Your task to perform on an android device: clear all cookies in the chrome app Image 0: 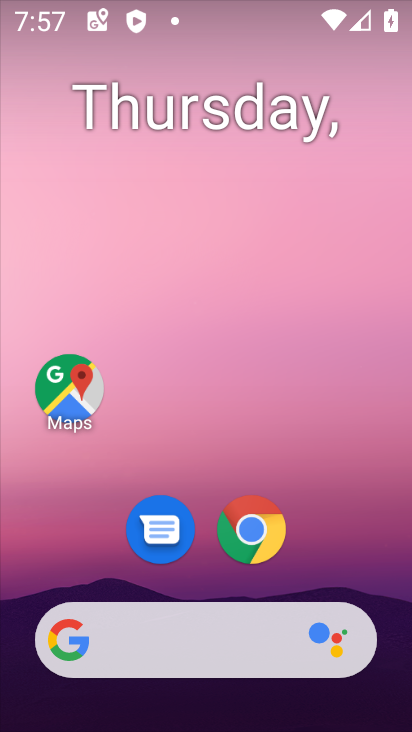
Step 0: click (250, 540)
Your task to perform on an android device: clear all cookies in the chrome app Image 1: 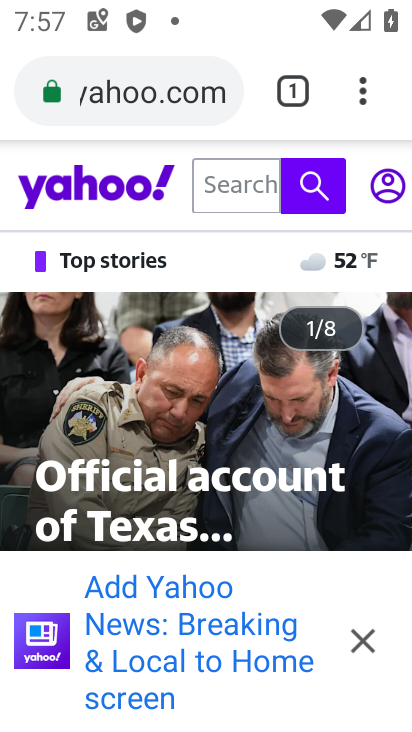
Step 1: click (361, 97)
Your task to perform on an android device: clear all cookies in the chrome app Image 2: 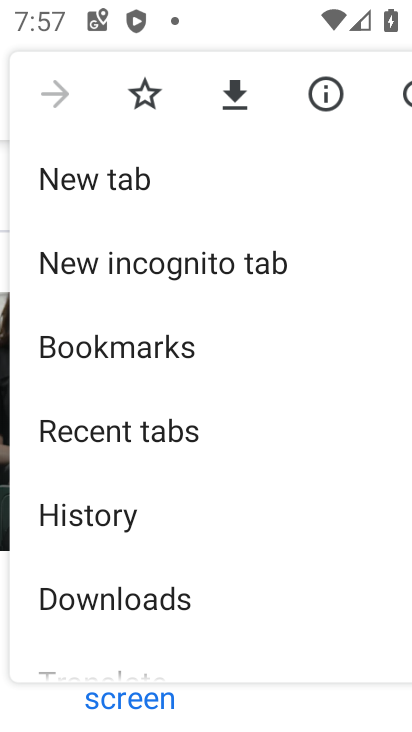
Step 2: click (96, 519)
Your task to perform on an android device: clear all cookies in the chrome app Image 3: 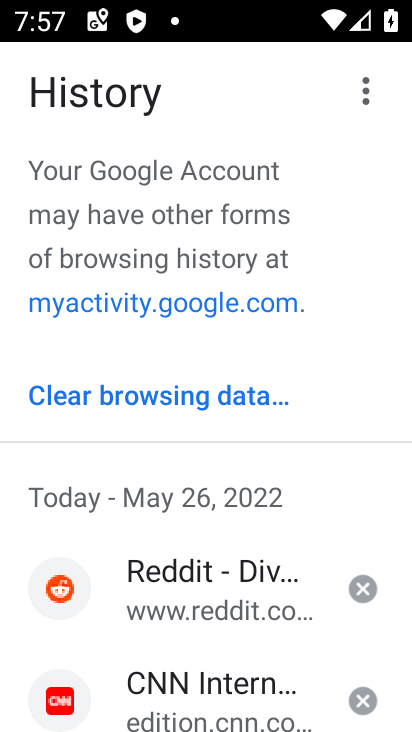
Step 3: click (161, 395)
Your task to perform on an android device: clear all cookies in the chrome app Image 4: 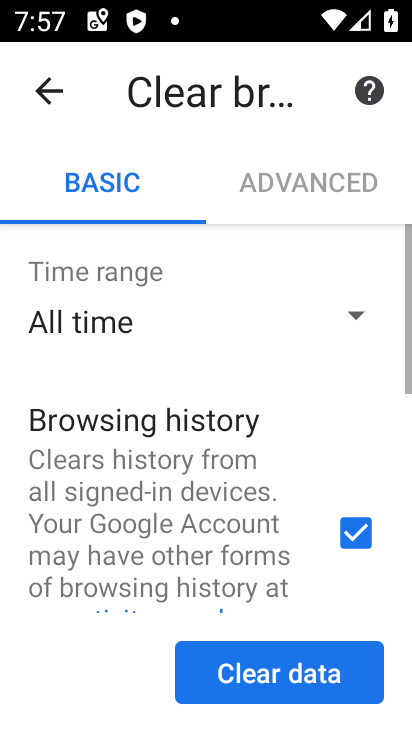
Step 4: drag from (235, 584) to (247, 386)
Your task to perform on an android device: clear all cookies in the chrome app Image 5: 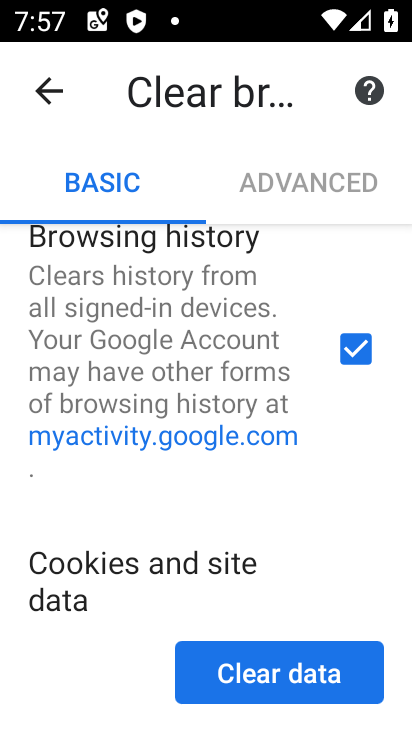
Step 5: click (363, 343)
Your task to perform on an android device: clear all cookies in the chrome app Image 6: 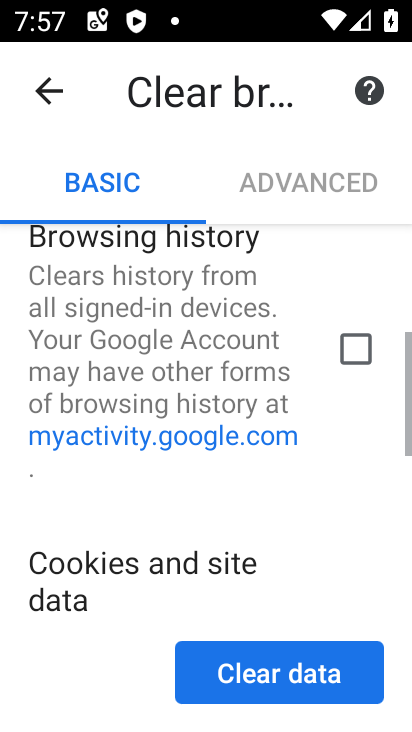
Step 6: drag from (301, 597) to (293, 272)
Your task to perform on an android device: clear all cookies in the chrome app Image 7: 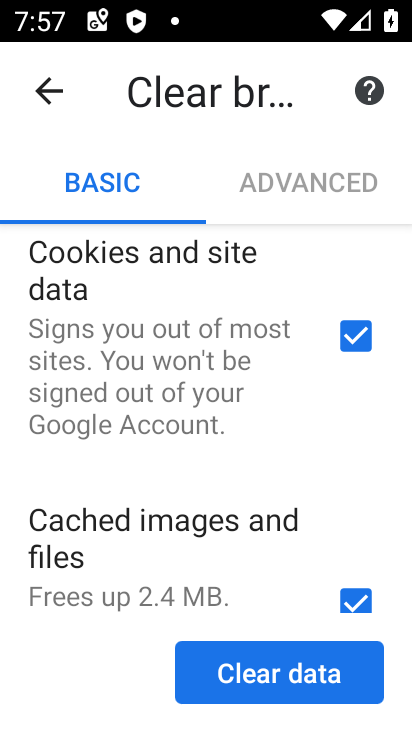
Step 7: click (354, 334)
Your task to perform on an android device: clear all cookies in the chrome app Image 8: 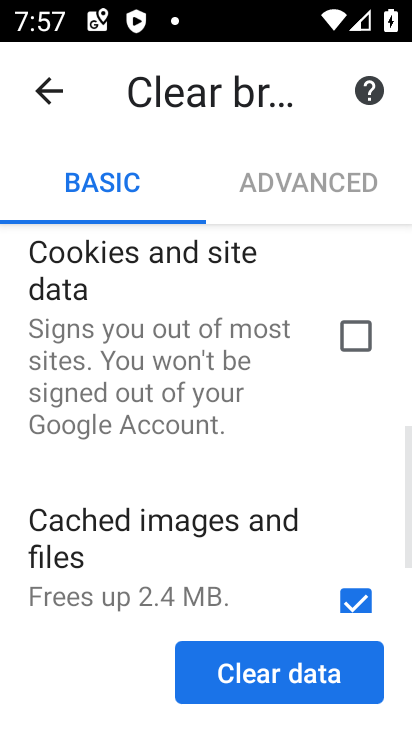
Step 8: click (352, 597)
Your task to perform on an android device: clear all cookies in the chrome app Image 9: 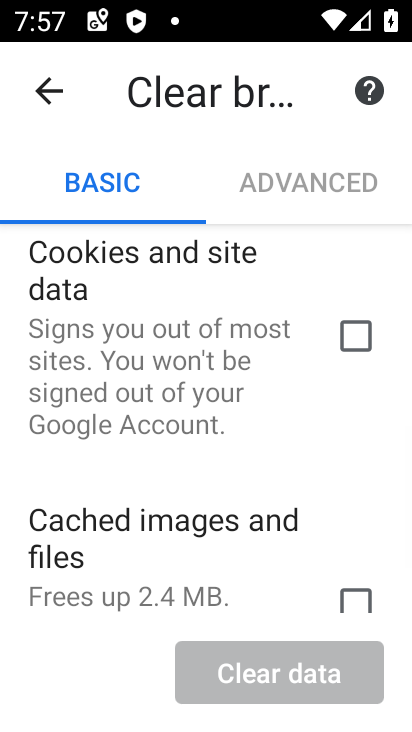
Step 9: click (356, 330)
Your task to perform on an android device: clear all cookies in the chrome app Image 10: 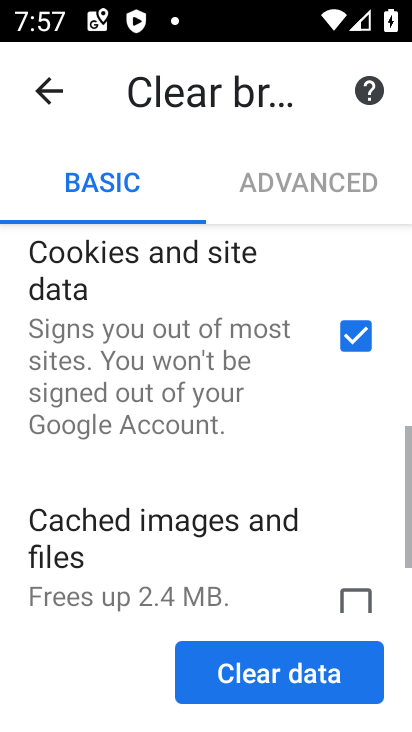
Step 10: click (301, 667)
Your task to perform on an android device: clear all cookies in the chrome app Image 11: 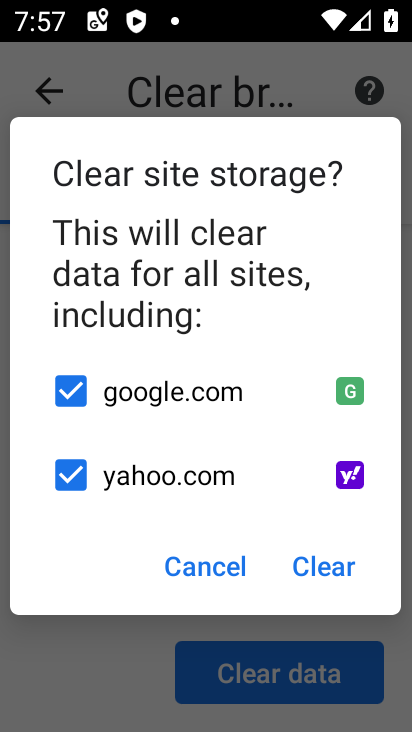
Step 11: click (331, 563)
Your task to perform on an android device: clear all cookies in the chrome app Image 12: 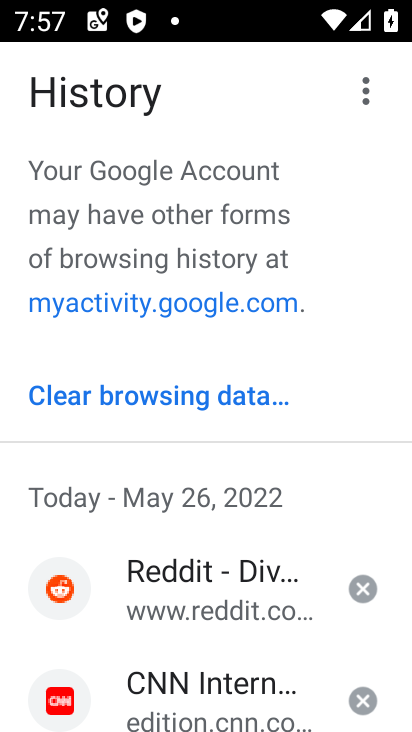
Step 12: task complete